Your task to perform on an android device: check data usage Image 0: 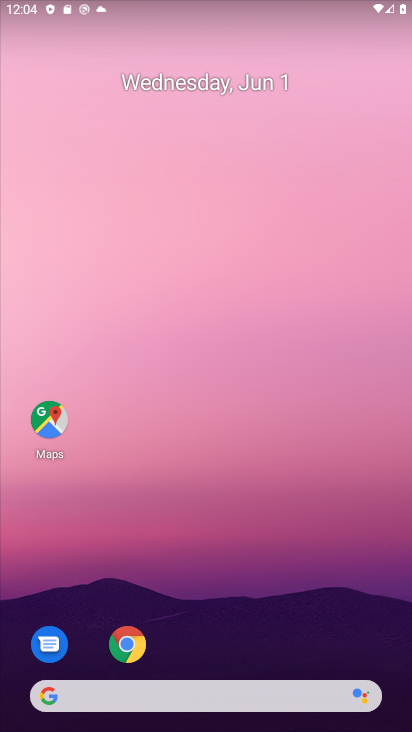
Step 0: drag from (281, 607) to (344, 114)
Your task to perform on an android device: check data usage Image 1: 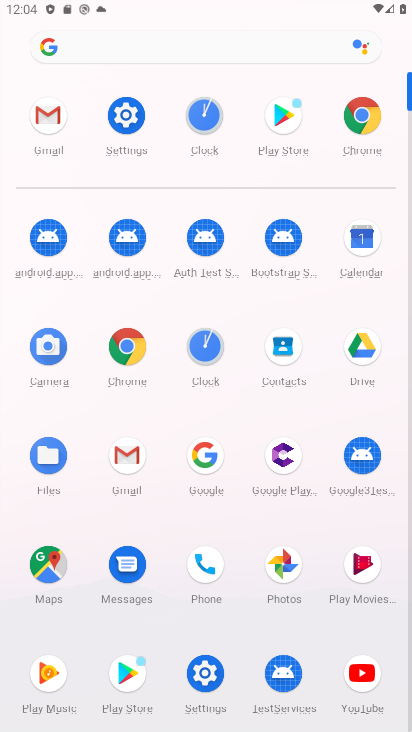
Step 1: click (218, 679)
Your task to perform on an android device: check data usage Image 2: 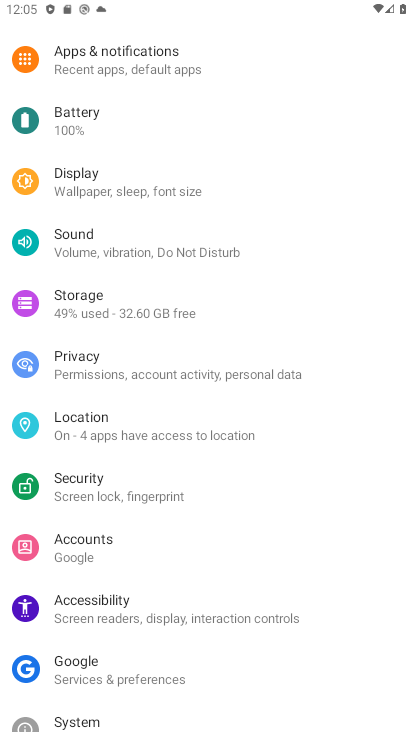
Step 2: drag from (282, 562) to (300, 467)
Your task to perform on an android device: check data usage Image 3: 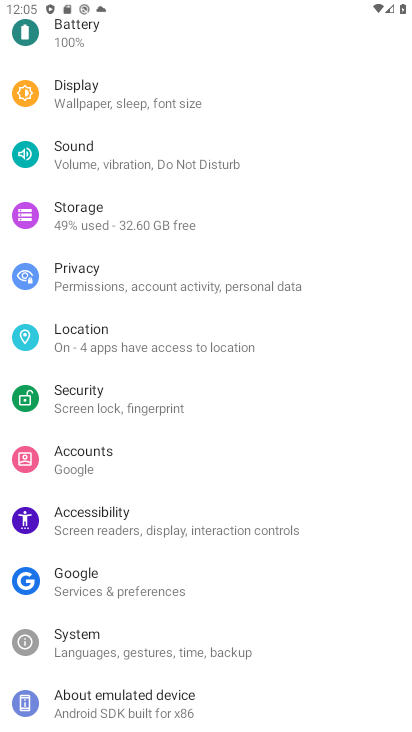
Step 3: drag from (307, 614) to (321, 360)
Your task to perform on an android device: check data usage Image 4: 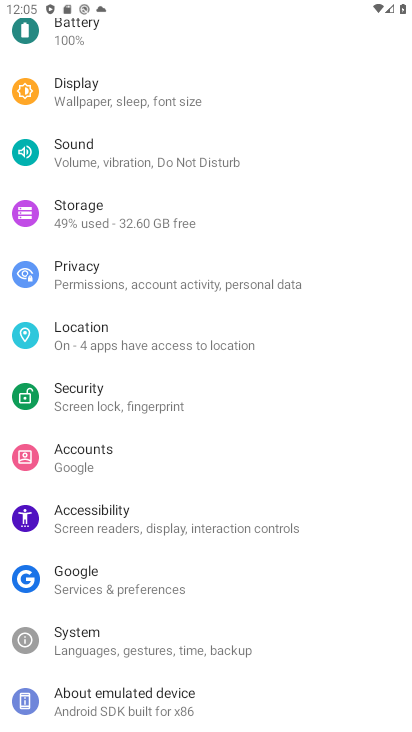
Step 4: drag from (124, 165) to (135, 533)
Your task to perform on an android device: check data usage Image 5: 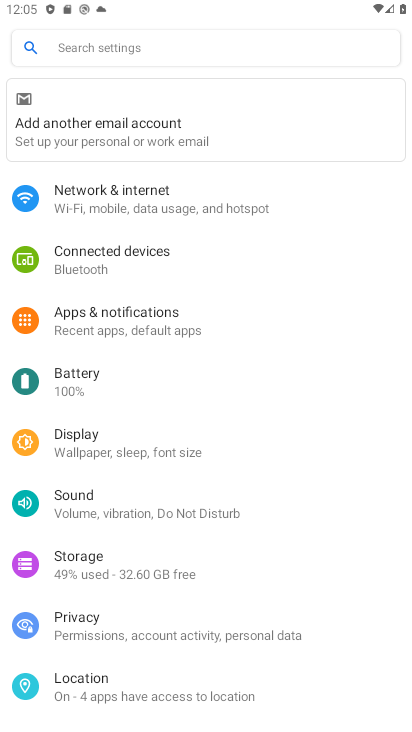
Step 5: click (159, 193)
Your task to perform on an android device: check data usage Image 6: 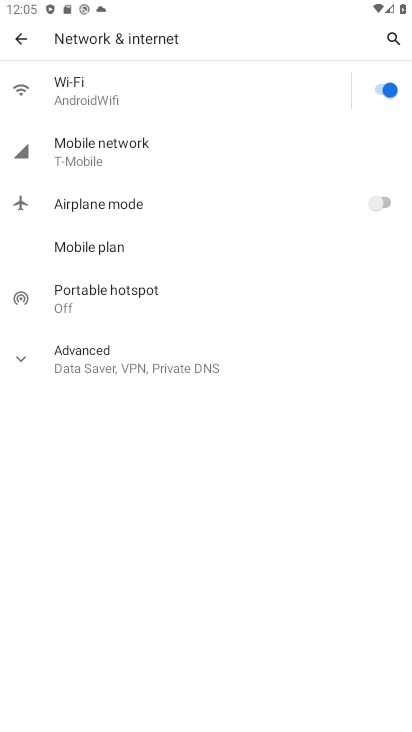
Step 6: click (171, 159)
Your task to perform on an android device: check data usage Image 7: 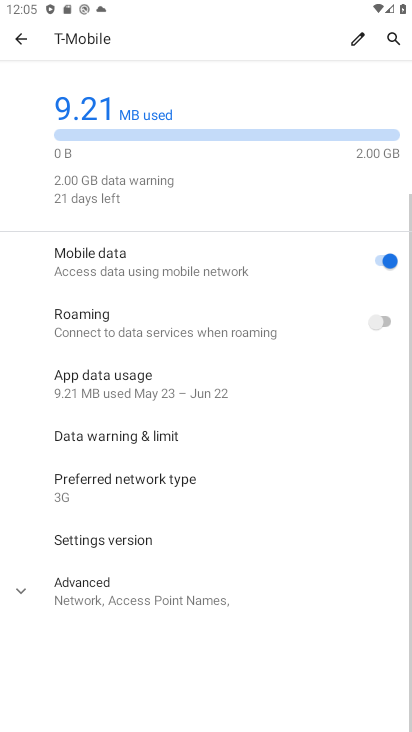
Step 7: task complete